Your task to perform on an android device: move an email to a new category in the gmail app Image 0: 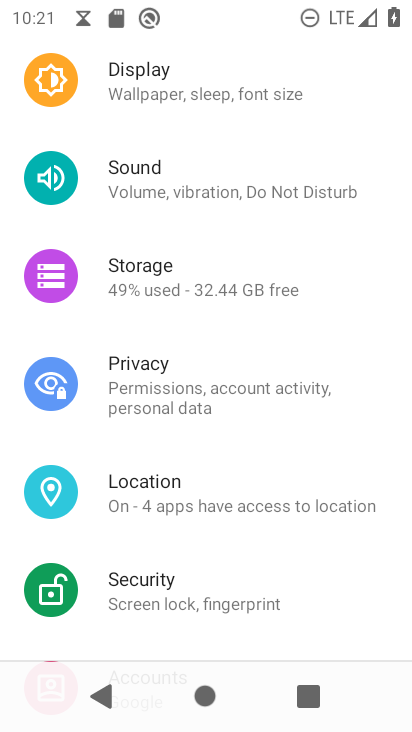
Step 0: press back button
Your task to perform on an android device: move an email to a new category in the gmail app Image 1: 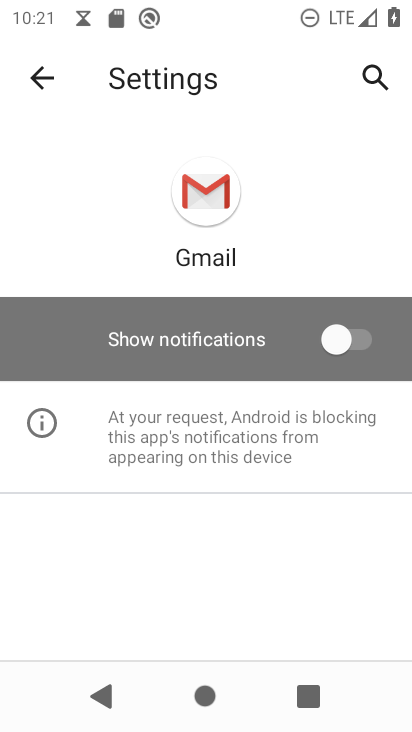
Step 1: click (26, 72)
Your task to perform on an android device: move an email to a new category in the gmail app Image 2: 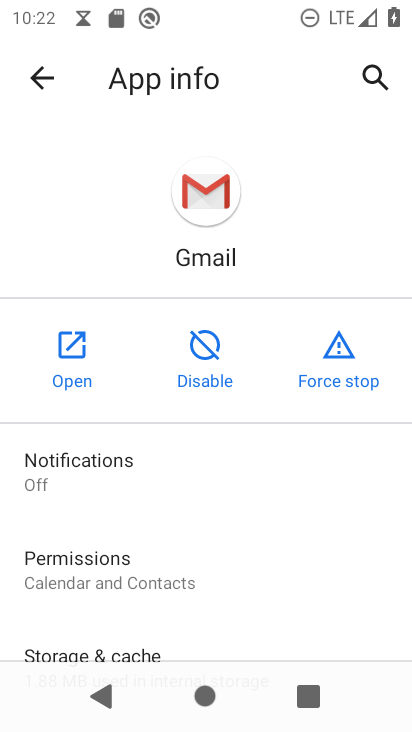
Step 2: click (42, 85)
Your task to perform on an android device: move an email to a new category in the gmail app Image 3: 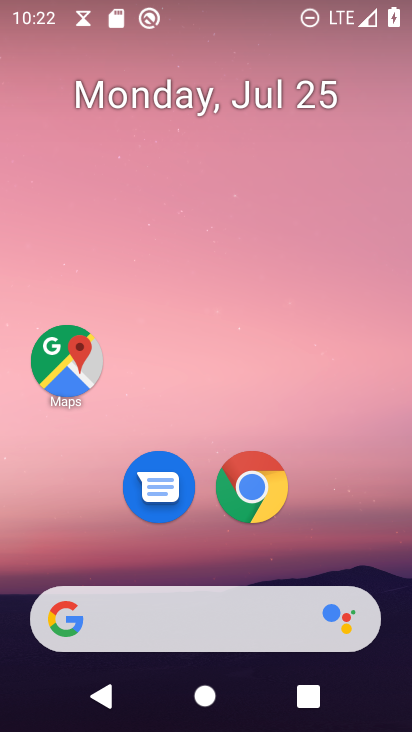
Step 3: drag from (218, 541) to (281, 0)
Your task to perform on an android device: move an email to a new category in the gmail app Image 4: 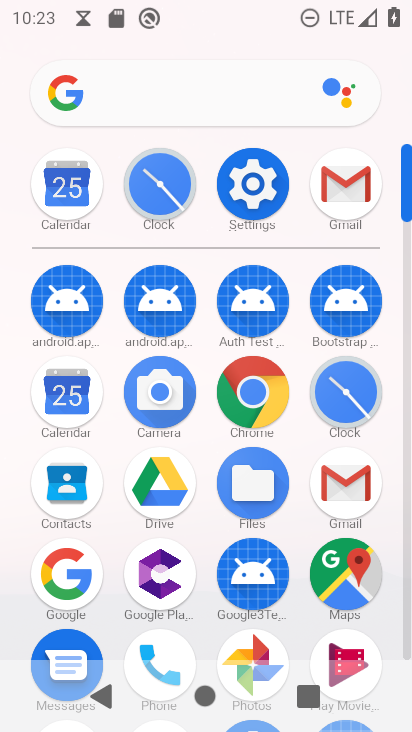
Step 4: click (359, 184)
Your task to perform on an android device: move an email to a new category in the gmail app Image 5: 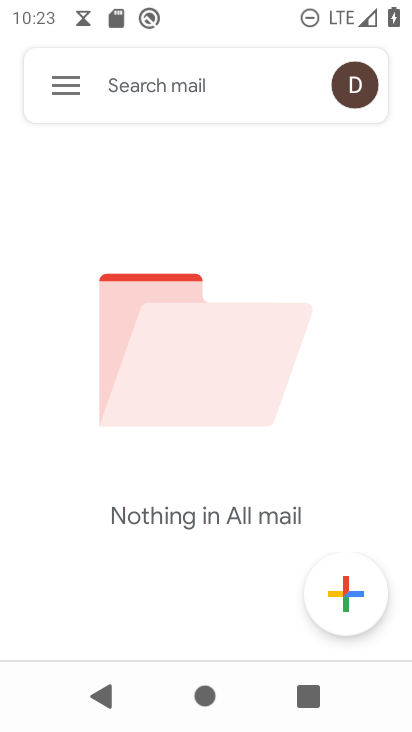
Step 5: task complete